Your task to perform on an android device: change timer sound Image 0: 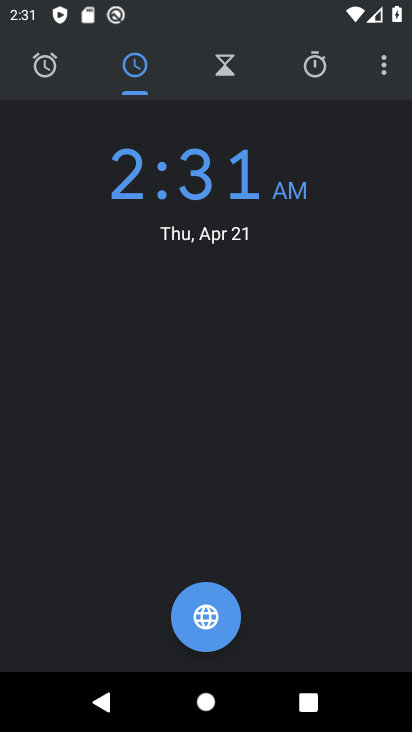
Step 0: click (380, 67)
Your task to perform on an android device: change timer sound Image 1: 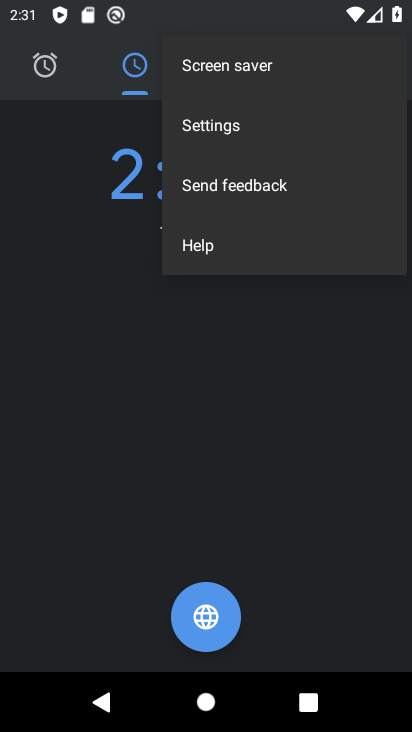
Step 1: click (230, 117)
Your task to perform on an android device: change timer sound Image 2: 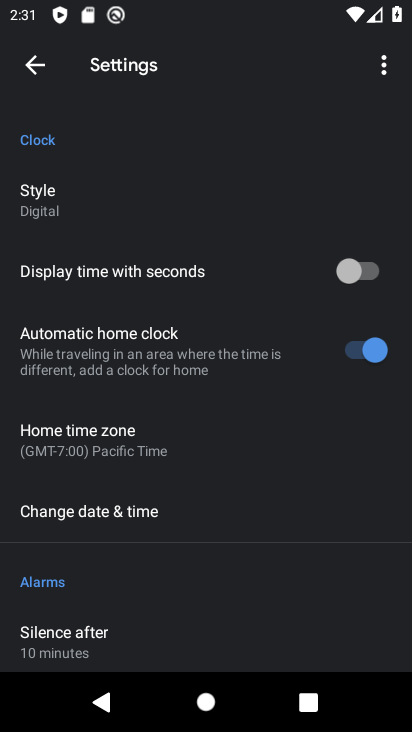
Step 2: drag from (89, 577) to (137, 283)
Your task to perform on an android device: change timer sound Image 3: 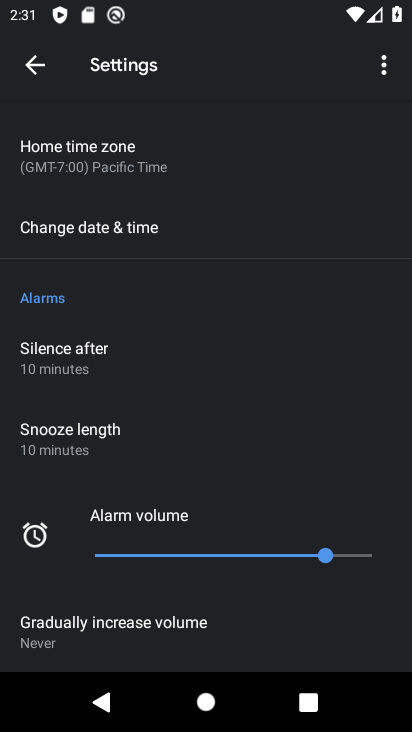
Step 3: drag from (116, 629) to (162, 335)
Your task to perform on an android device: change timer sound Image 4: 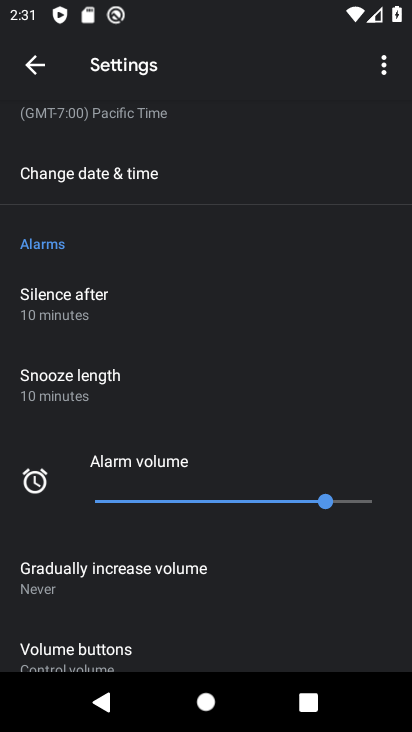
Step 4: drag from (132, 647) to (144, 392)
Your task to perform on an android device: change timer sound Image 5: 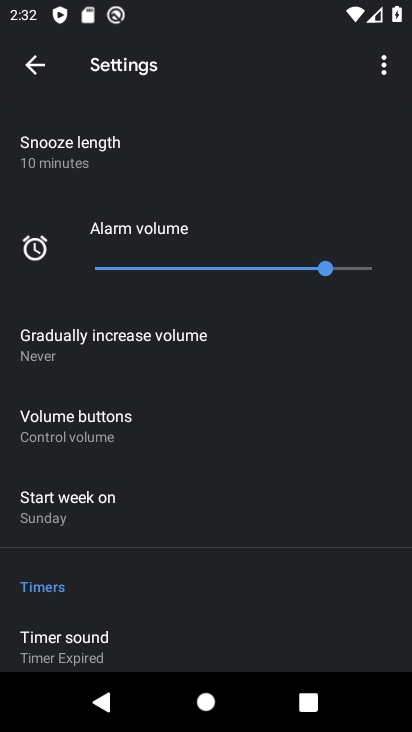
Step 5: click (61, 656)
Your task to perform on an android device: change timer sound Image 6: 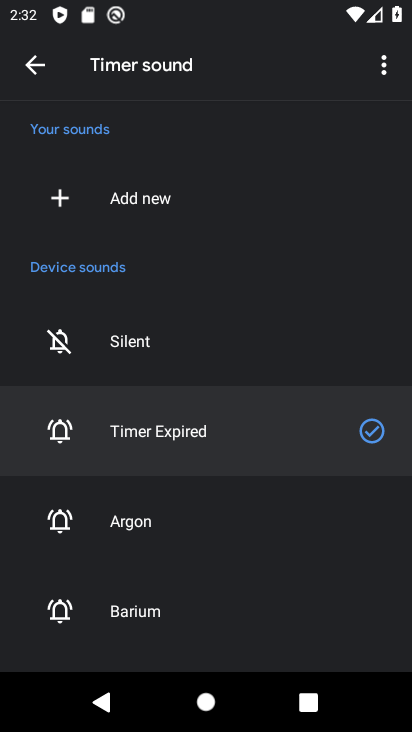
Step 6: click (123, 536)
Your task to perform on an android device: change timer sound Image 7: 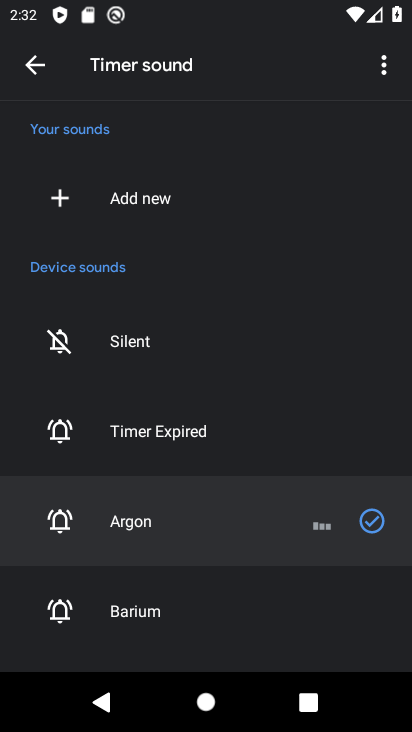
Step 7: task complete